Your task to perform on an android device: Open Reddit.com Image 0: 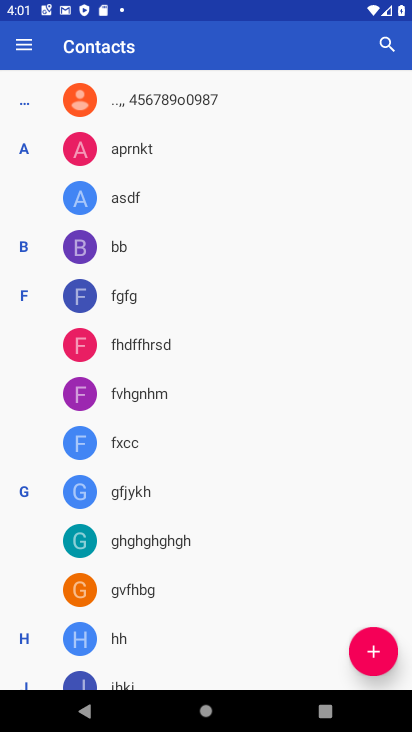
Step 0: press home button
Your task to perform on an android device: Open Reddit.com Image 1: 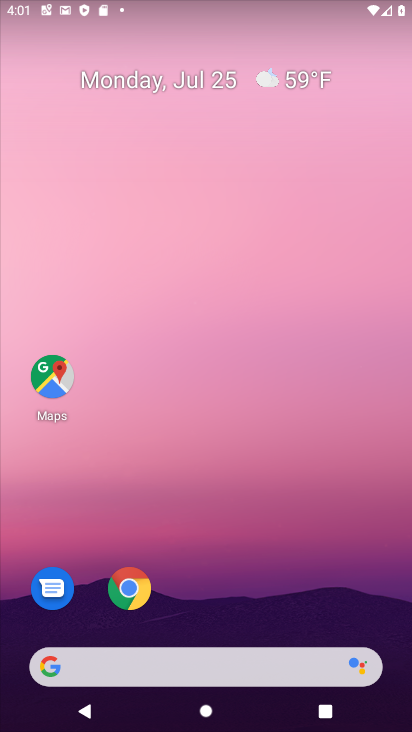
Step 1: click (126, 586)
Your task to perform on an android device: Open Reddit.com Image 2: 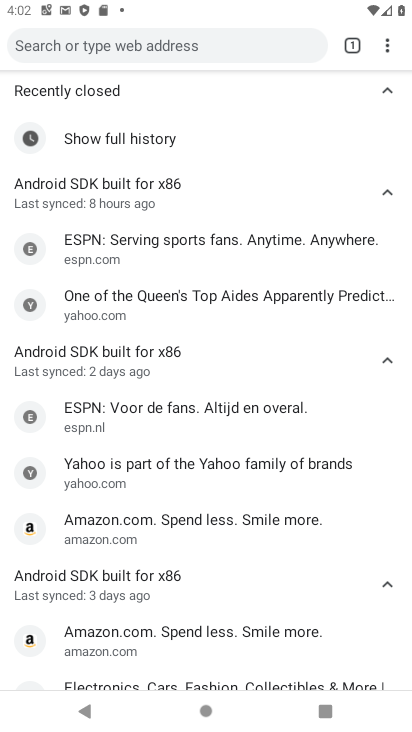
Step 2: click (274, 32)
Your task to perform on an android device: Open Reddit.com Image 3: 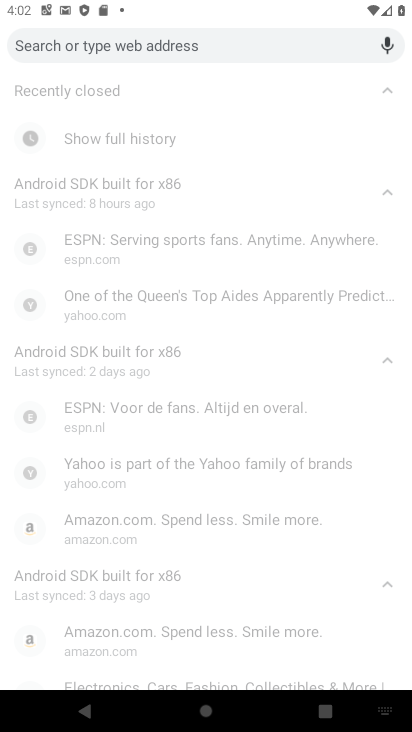
Step 3: type " Reddit.com"
Your task to perform on an android device: Open Reddit.com Image 4: 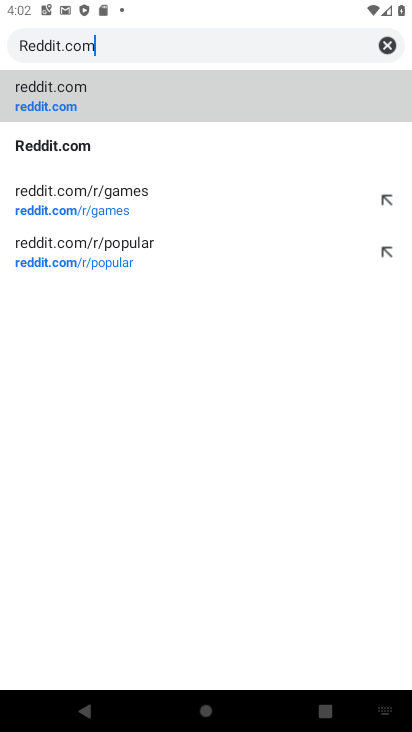
Step 4: click (62, 107)
Your task to perform on an android device: Open Reddit.com Image 5: 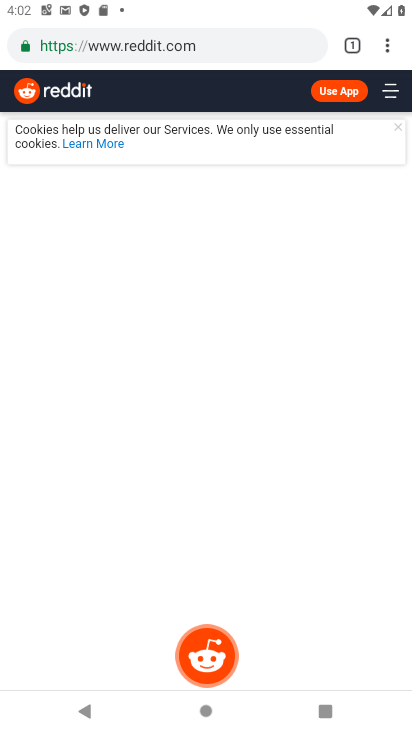
Step 5: task complete